Your task to perform on an android device: toggle improve location accuracy Image 0: 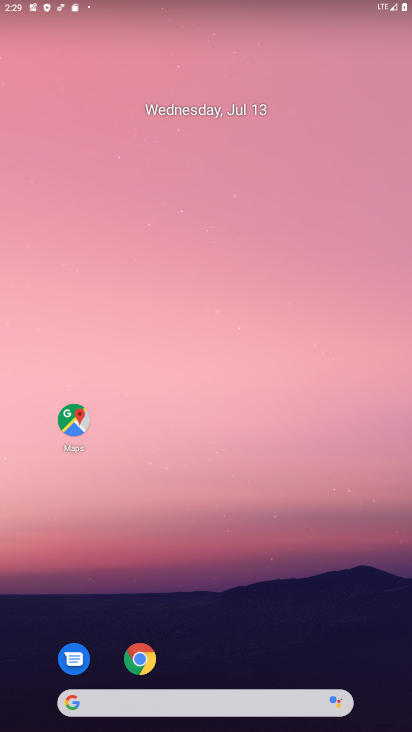
Step 0: drag from (343, 655) to (325, 120)
Your task to perform on an android device: toggle improve location accuracy Image 1: 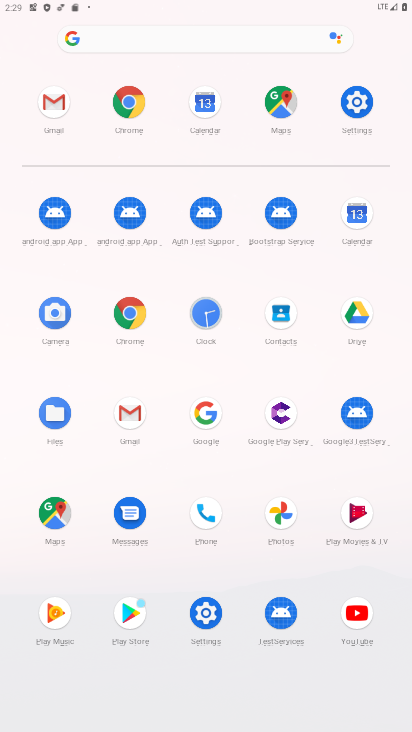
Step 1: click (203, 611)
Your task to perform on an android device: toggle improve location accuracy Image 2: 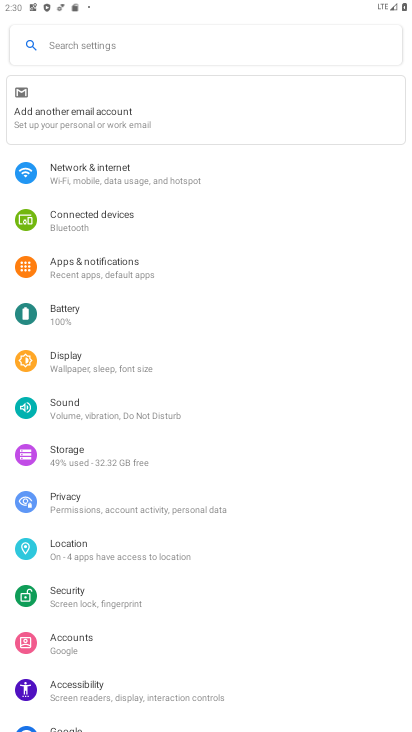
Step 2: click (83, 541)
Your task to perform on an android device: toggle improve location accuracy Image 3: 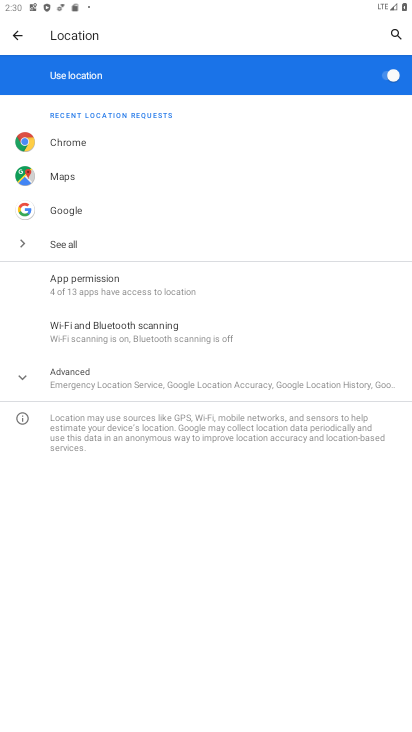
Step 3: click (18, 372)
Your task to perform on an android device: toggle improve location accuracy Image 4: 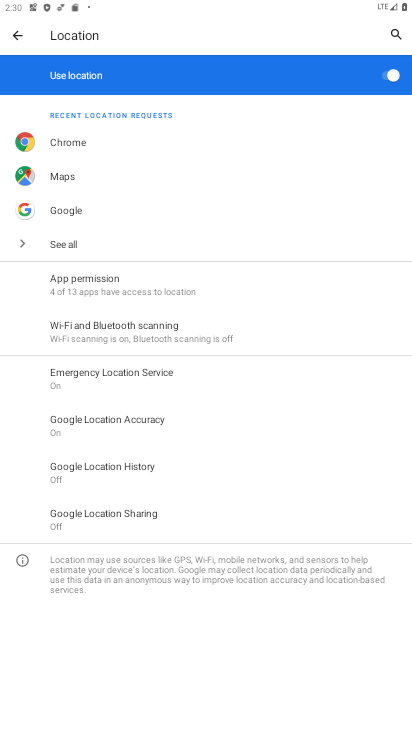
Step 4: click (114, 418)
Your task to perform on an android device: toggle improve location accuracy Image 5: 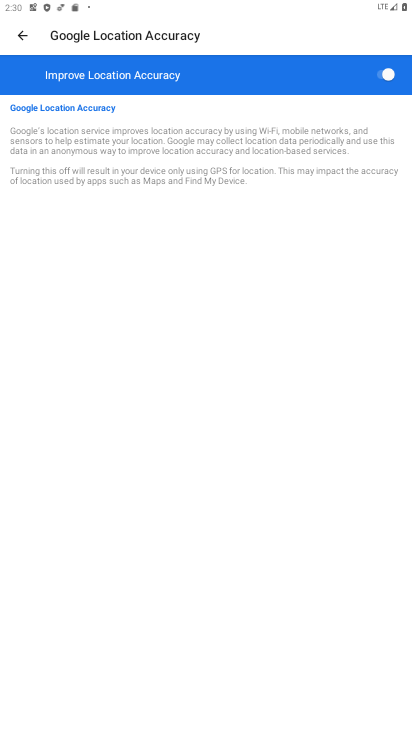
Step 5: click (377, 71)
Your task to perform on an android device: toggle improve location accuracy Image 6: 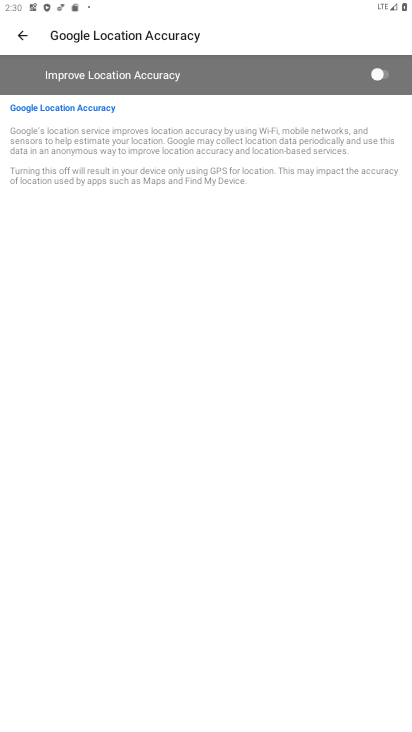
Step 6: task complete